Your task to perform on an android device: Search for Italian restaurants on Maps Image 0: 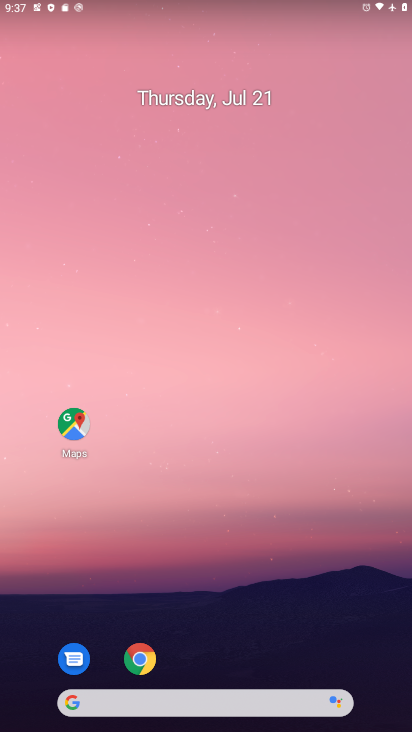
Step 0: drag from (202, 616) to (278, 31)
Your task to perform on an android device: Search for Italian restaurants on Maps Image 1: 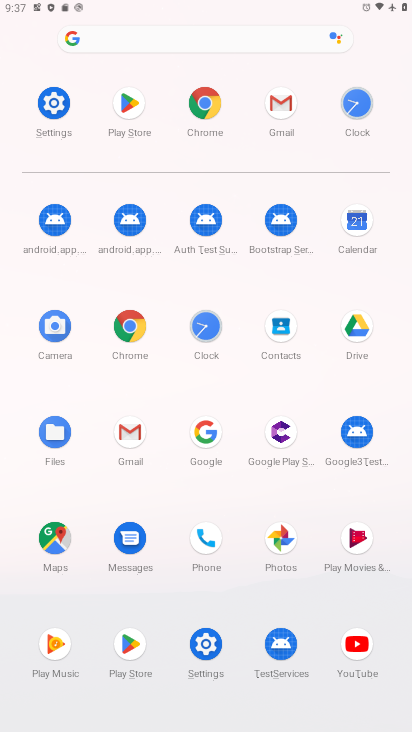
Step 1: click (51, 543)
Your task to perform on an android device: Search for Italian restaurants on Maps Image 2: 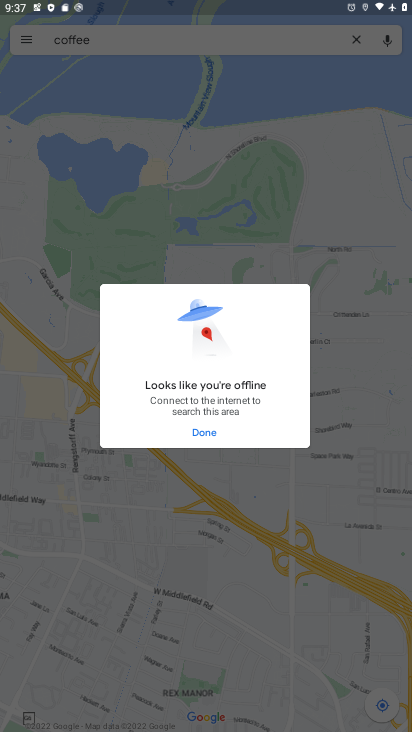
Step 2: click (210, 431)
Your task to perform on an android device: Search for Italian restaurants on Maps Image 3: 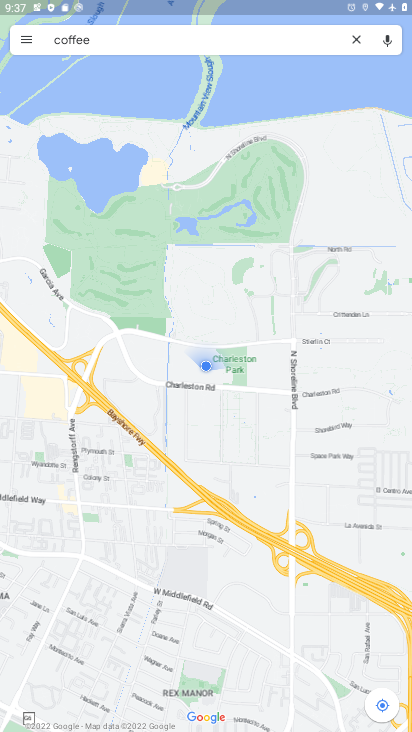
Step 3: click (210, 431)
Your task to perform on an android device: Search for Italian restaurants on Maps Image 4: 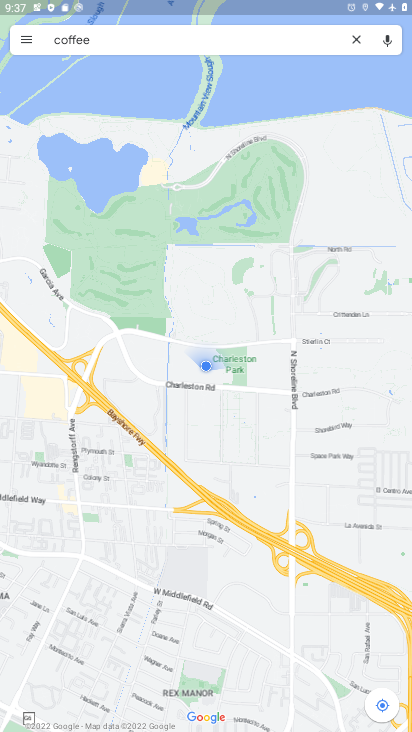
Step 4: click (351, 40)
Your task to perform on an android device: Search for Italian restaurants on Maps Image 5: 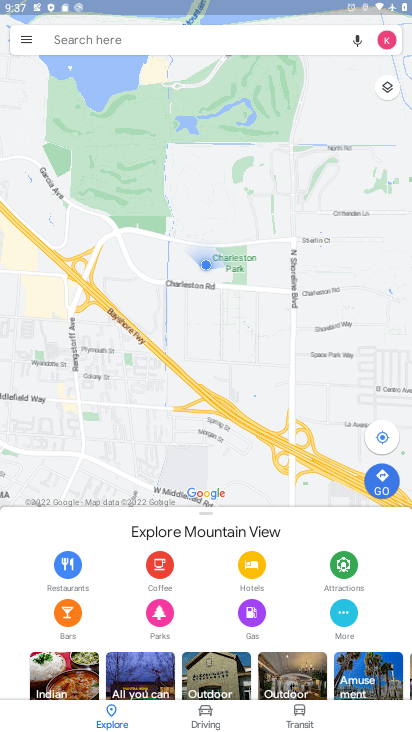
Step 5: click (175, 49)
Your task to perform on an android device: Search for Italian restaurants on Maps Image 6: 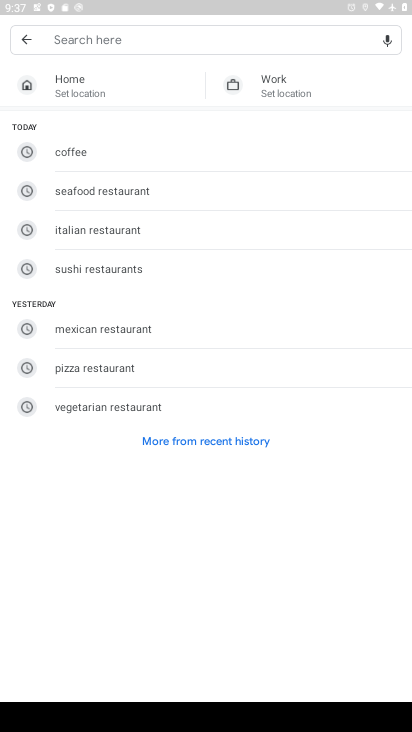
Step 6: click (171, 228)
Your task to perform on an android device: Search for Italian restaurants on Maps Image 7: 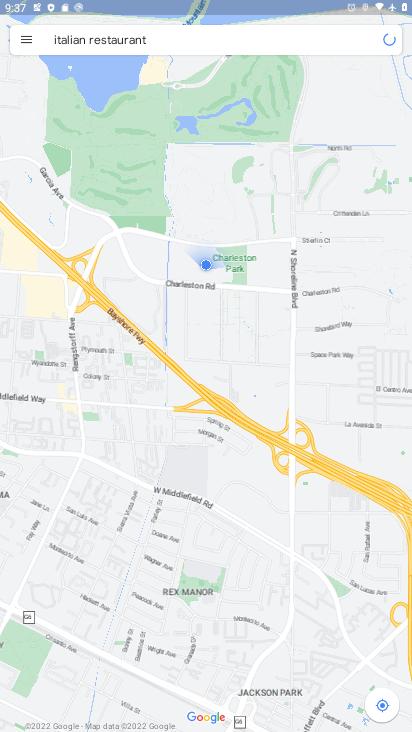
Step 7: task complete